Your task to perform on an android device: toggle notification dots Image 0: 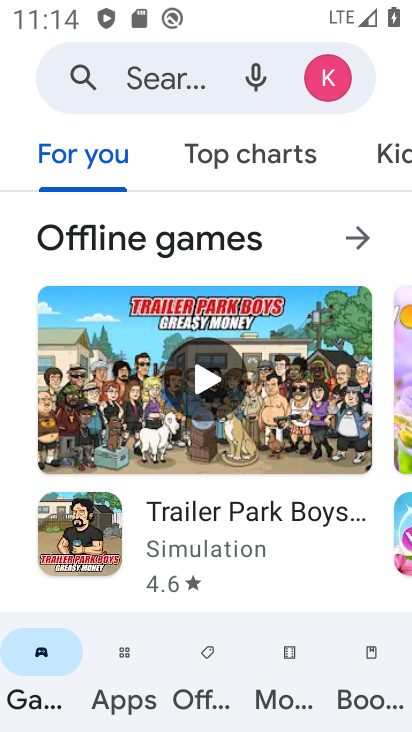
Step 0: press home button
Your task to perform on an android device: toggle notification dots Image 1: 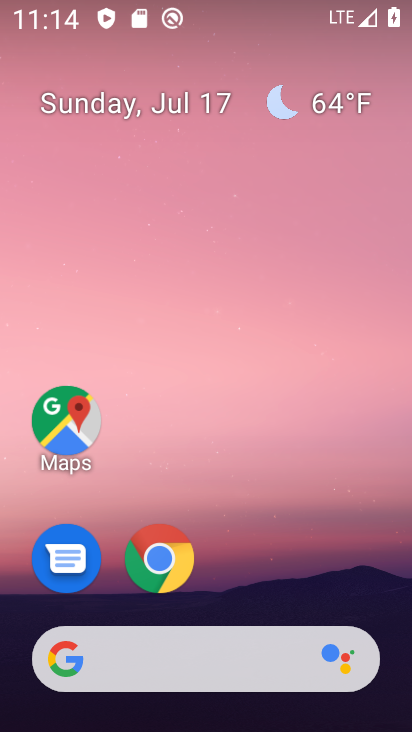
Step 1: drag from (332, 555) to (353, 111)
Your task to perform on an android device: toggle notification dots Image 2: 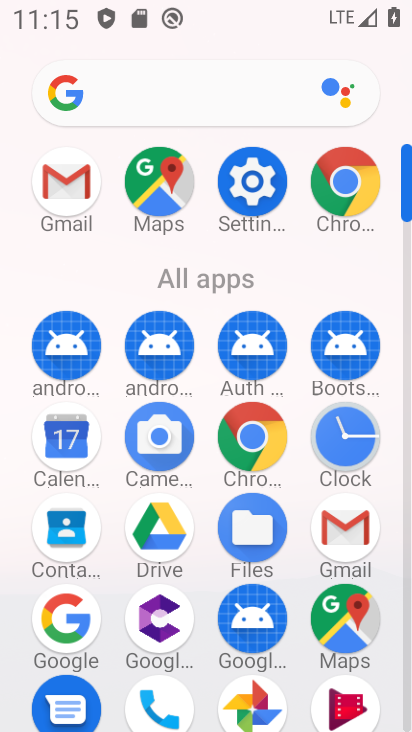
Step 2: click (258, 202)
Your task to perform on an android device: toggle notification dots Image 3: 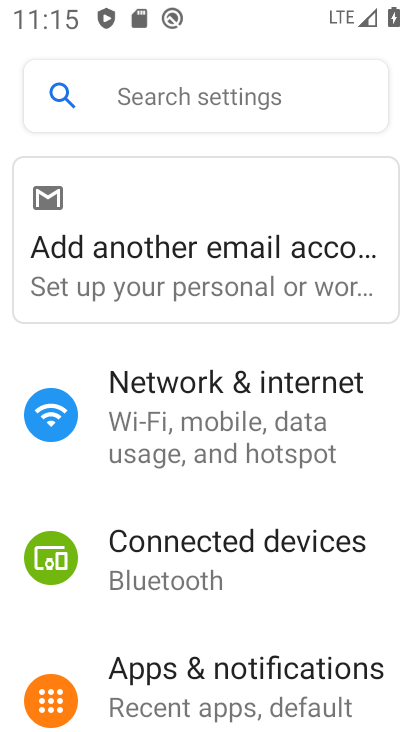
Step 3: drag from (374, 488) to (373, 386)
Your task to perform on an android device: toggle notification dots Image 4: 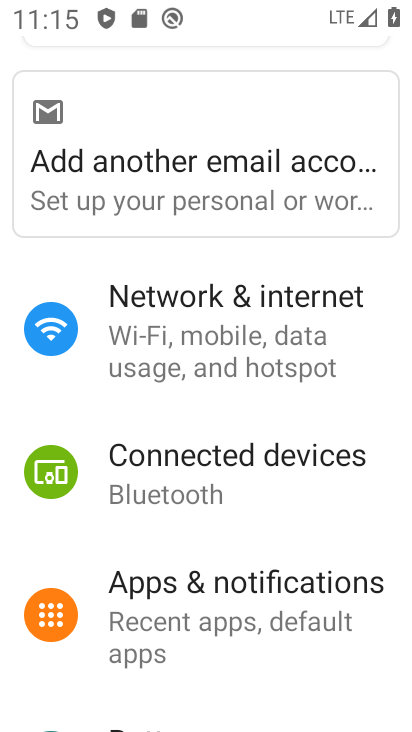
Step 4: drag from (368, 520) to (372, 400)
Your task to perform on an android device: toggle notification dots Image 5: 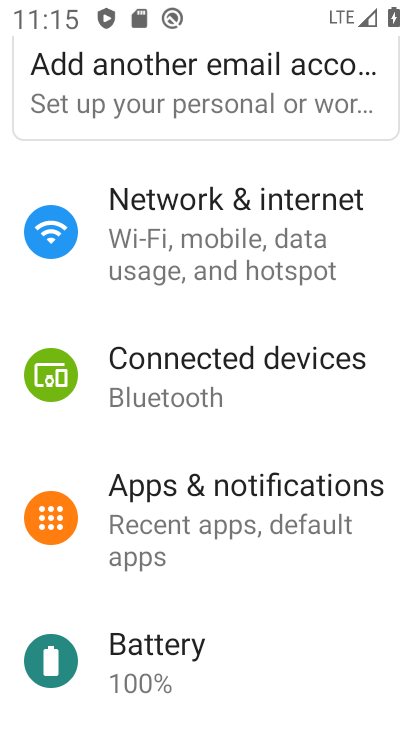
Step 5: drag from (351, 573) to (361, 379)
Your task to perform on an android device: toggle notification dots Image 6: 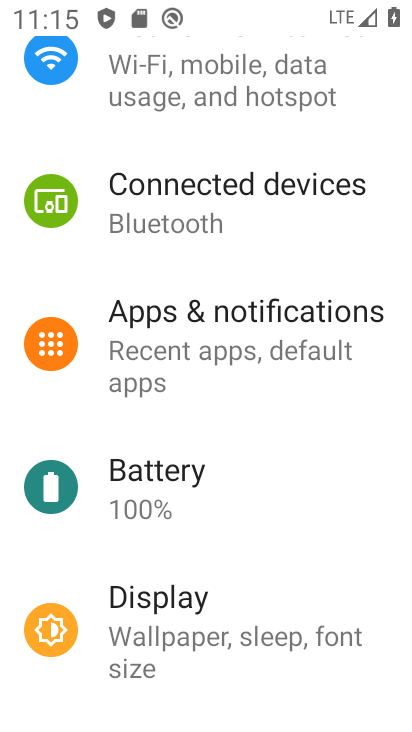
Step 6: drag from (343, 512) to (346, 376)
Your task to perform on an android device: toggle notification dots Image 7: 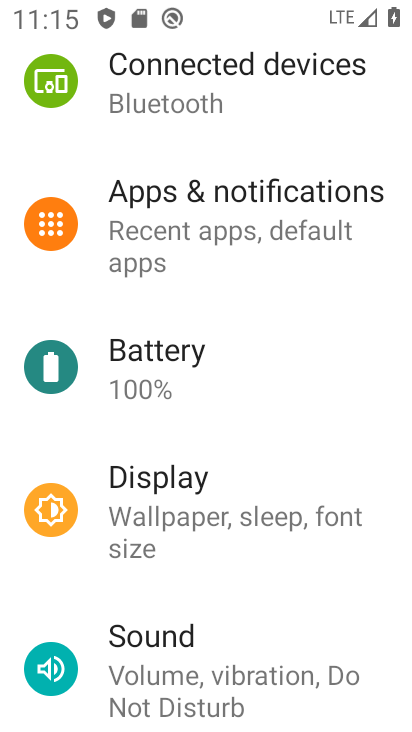
Step 7: drag from (342, 560) to (347, 448)
Your task to perform on an android device: toggle notification dots Image 8: 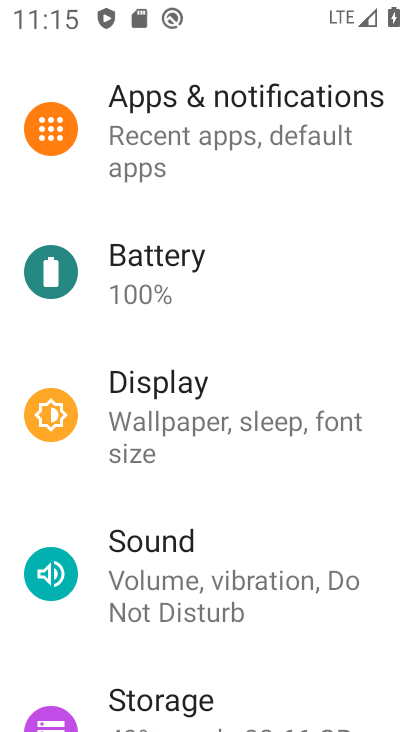
Step 8: drag from (355, 201) to (349, 319)
Your task to perform on an android device: toggle notification dots Image 9: 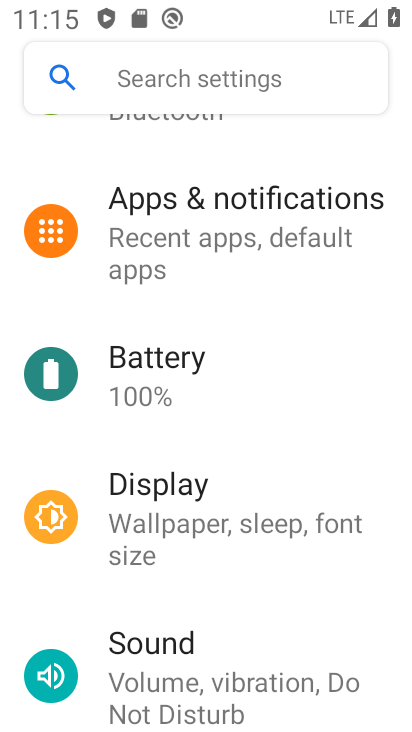
Step 9: drag from (385, 159) to (385, 359)
Your task to perform on an android device: toggle notification dots Image 10: 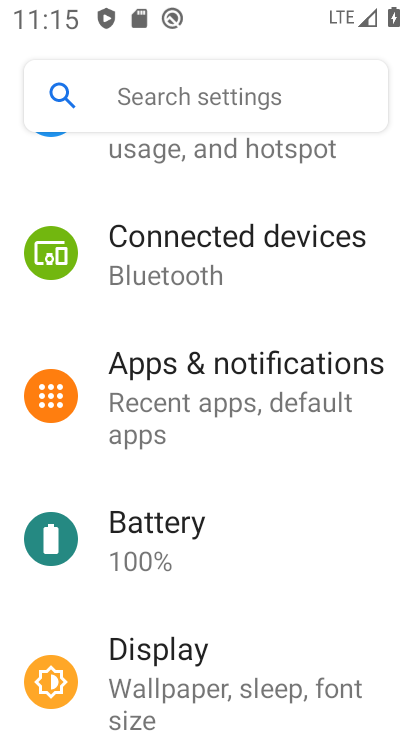
Step 10: click (270, 357)
Your task to perform on an android device: toggle notification dots Image 11: 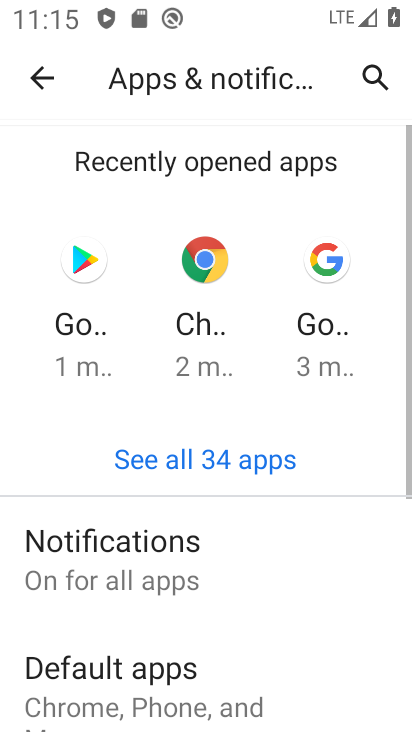
Step 11: drag from (287, 516) to (301, 313)
Your task to perform on an android device: toggle notification dots Image 12: 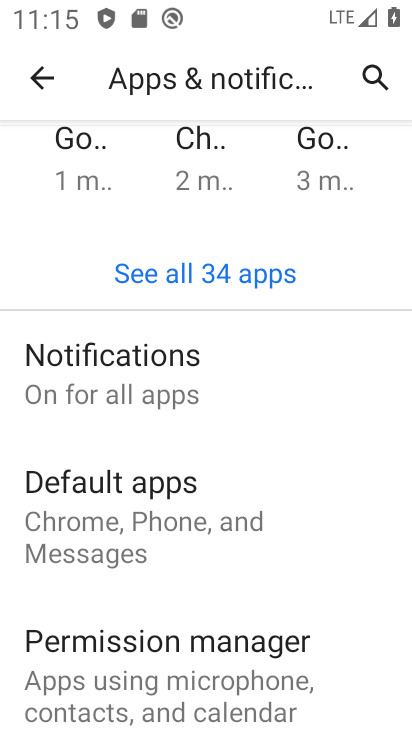
Step 12: click (206, 385)
Your task to perform on an android device: toggle notification dots Image 13: 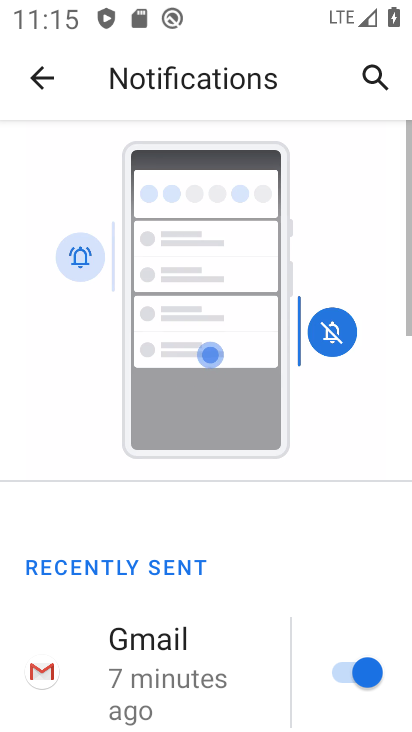
Step 13: drag from (308, 539) to (310, 416)
Your task to perform on an android device: toggle notification dots Image 14: 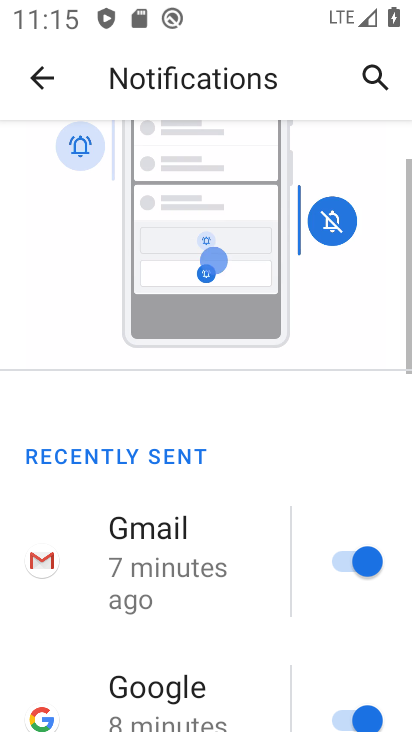
Step 14: drag from (257, 505) to (257, 461)
Your task to perform on an android device: toggle notification dots Image 15: 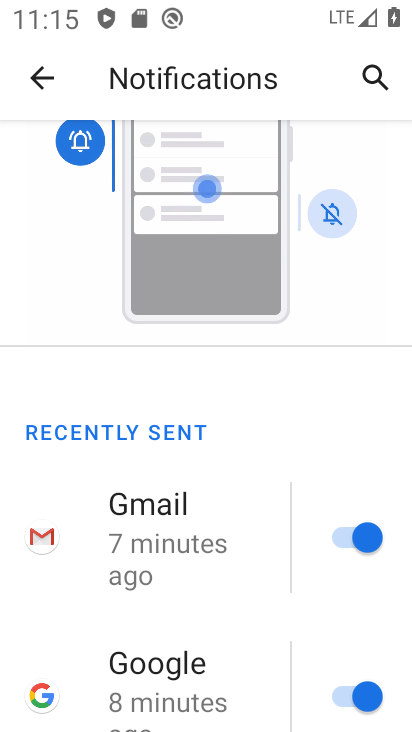
Step 15: drag from (248, 603) to (254, 437)
Your task to perform on an android device: toggle notification dots Image 16: 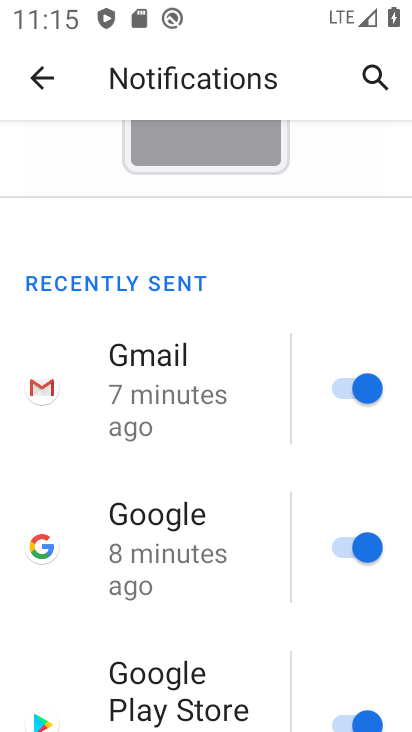
Step 16: drag from (234, 609) to (257, 466)
Your task to perform on an android device: toggle notification dots Image 17: 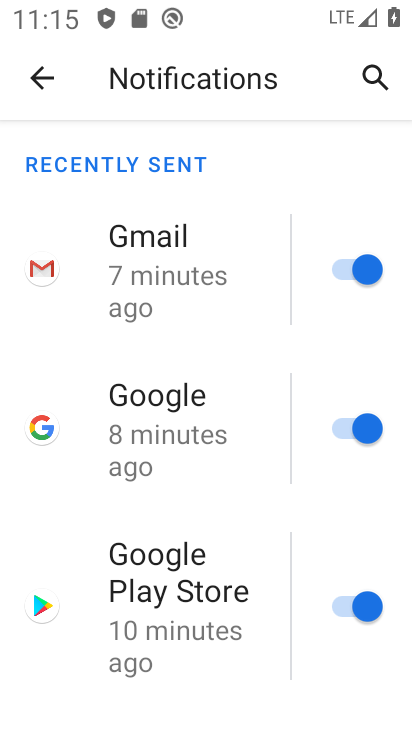
Step 17: drag from (245, 645) to (256, 477)
Your task to perform on an android device: toggle notification dots Image 18: 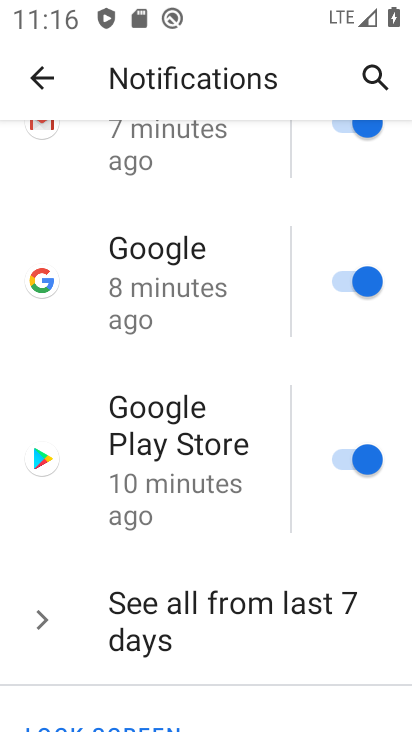
Step 18: drag from (259, 668) to (273, 525)
Your task to perform on an android device: toggle notification dots Image 19: 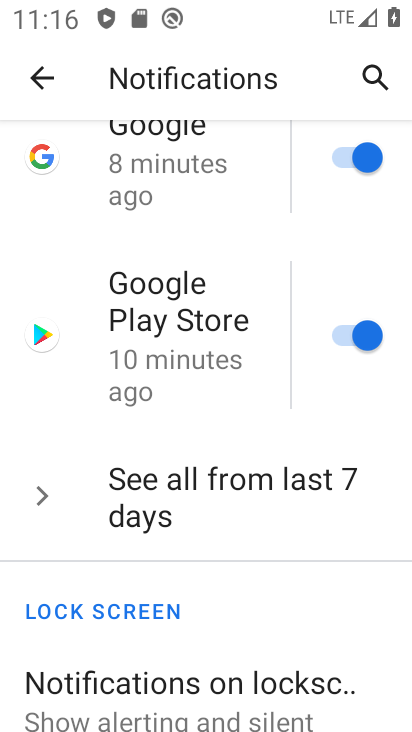
Step 19: drag from (260, 642) to (259, 442)
Your task to perform on an android device: toggle notification dots Image 20: 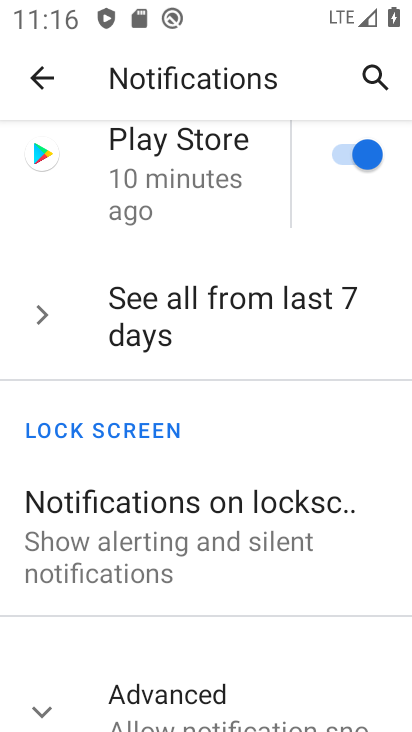
Step 20: drag from (247, 631) to (249, 482)
Your task to perform on an android device: toggle notification dots Image 21: 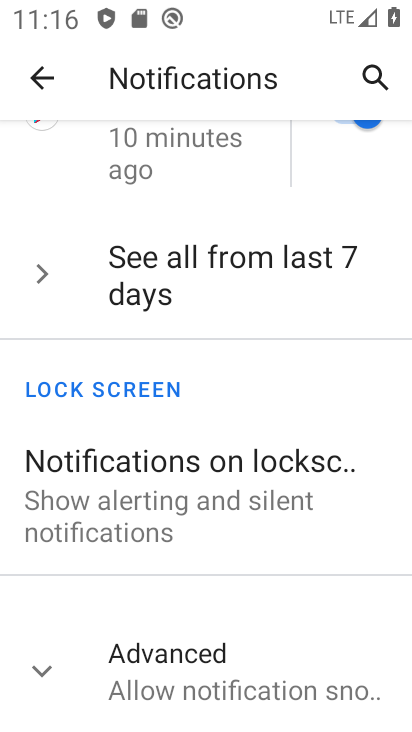
Step 21: click (255, 660)
Your task to perform on an android device: toggle notification dots Image 22: 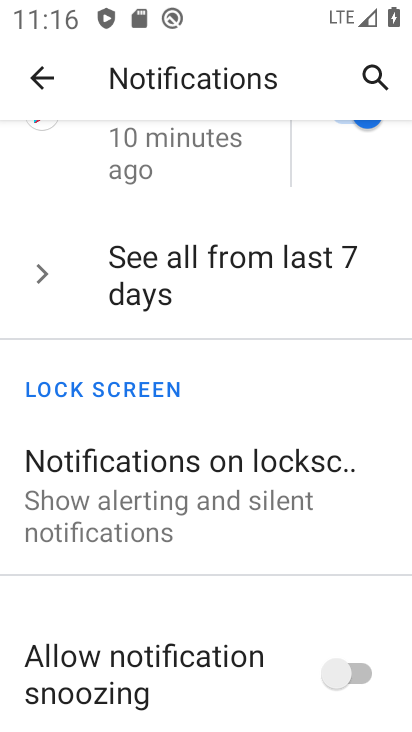
Step 22: drag from (245, 695) to (249, 503)
Your task to perform on an android device: toggle notification dots Image 23: 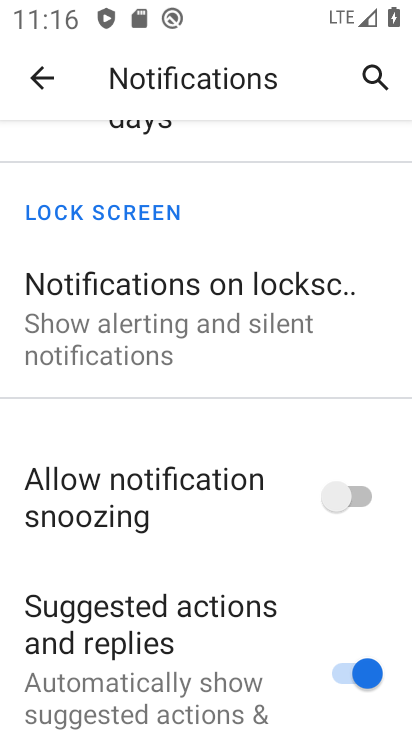
Step 23: drag from (261, 625) to (269, 408)
Your task to perform on an android device: toggle notification dots Image 24: 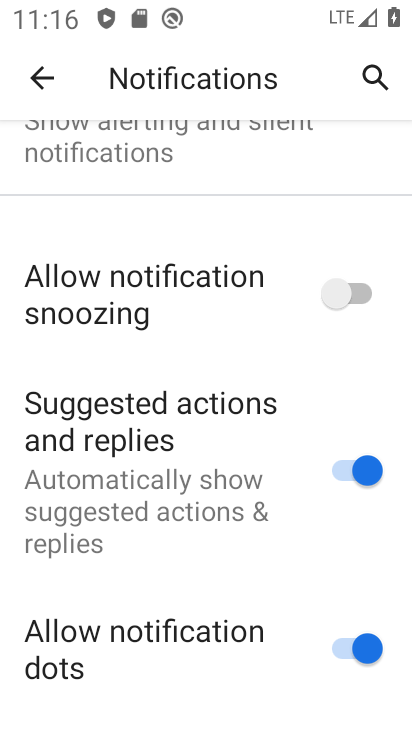
Step 24: drag from (275, 675) to (275, 470)
Your task to perform on an android device: toggle notification dots Image 25: 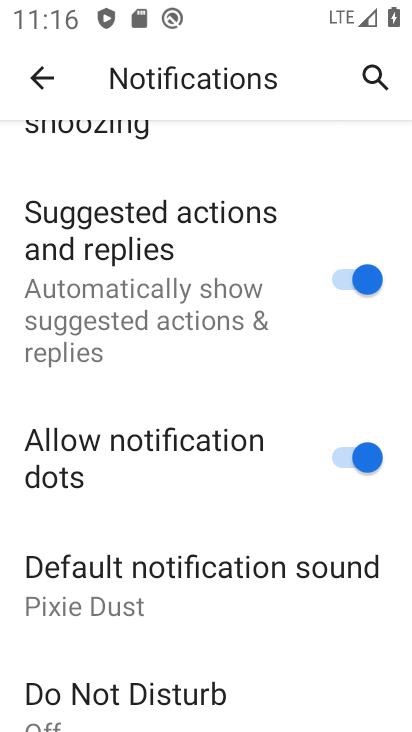
Step 25: click (355, 459)
Your task to perform on an android device: toggle notification dots Image 26: 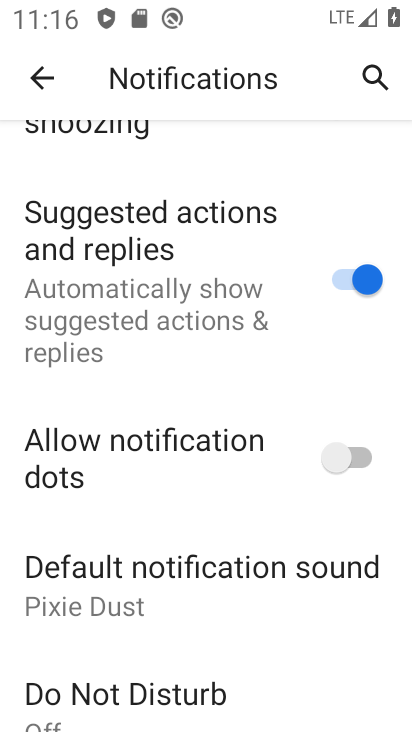
Step 26: task complete